Your task to perform on an android device: Go to Android settings Image 0: 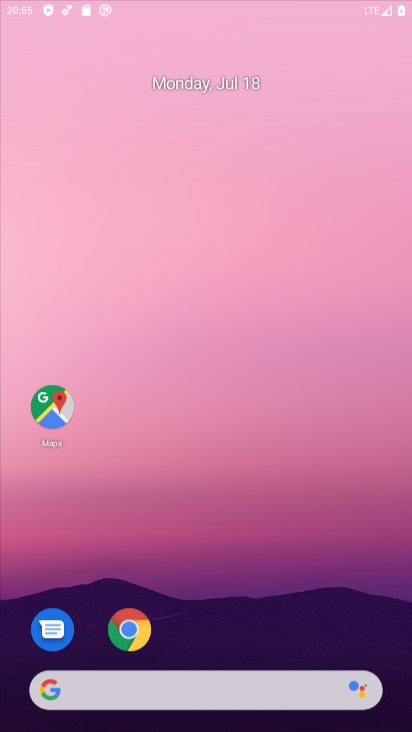
Step 0: press home button
Your task to perform on an android device: Go to Android settings Image 1: 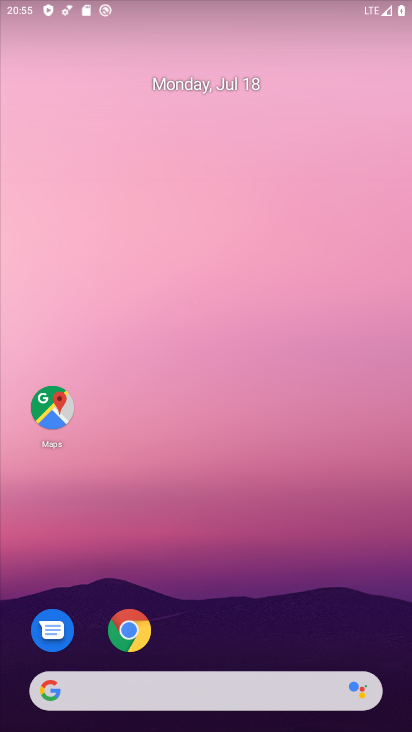
Step 1: click (137, 648)
Your task to perform on an android device: Go to Android settings Image 2: 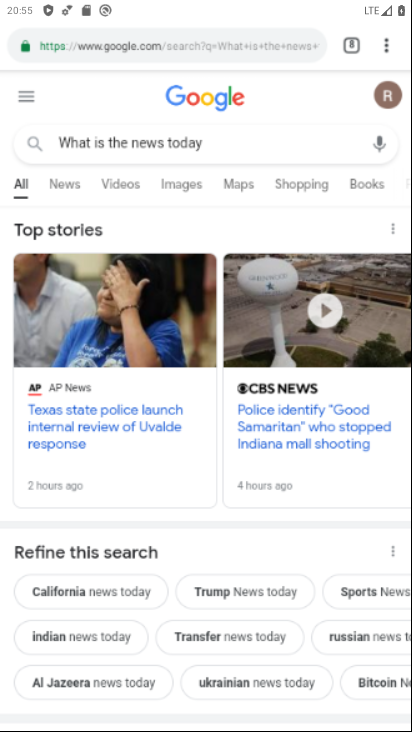
Step 2: click (395, 51)
Your task to perform on an android device: Go to Android settings Image 3: 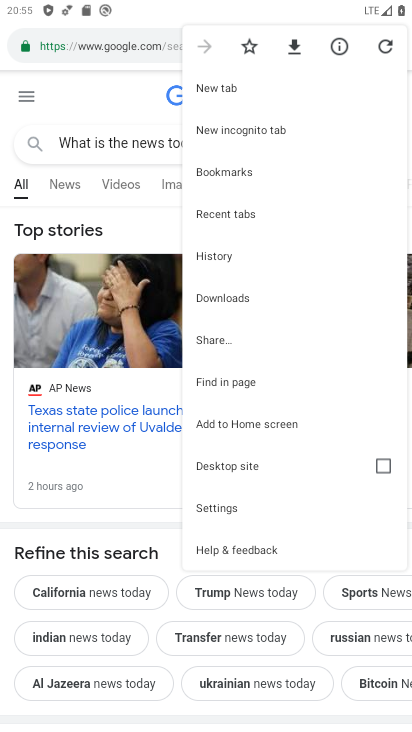
Step 3: click (241, 97)
Your task to perform on an android device: Go to Android settings Image 4: 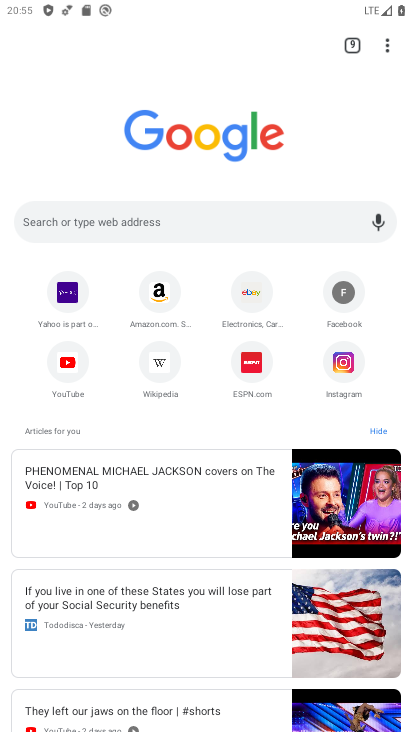
Step 4: click (159, 303)
Your task to perform on an android device: Go to Android settings Image 5: 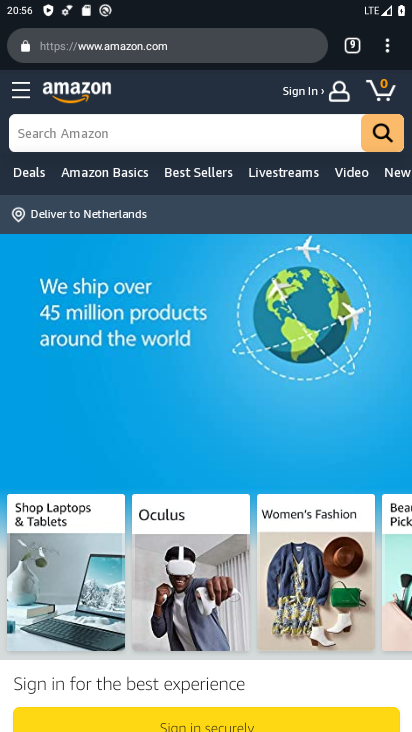
Step 5: press home button
Your task to perform on an android device: Go to Android settings Image 6: 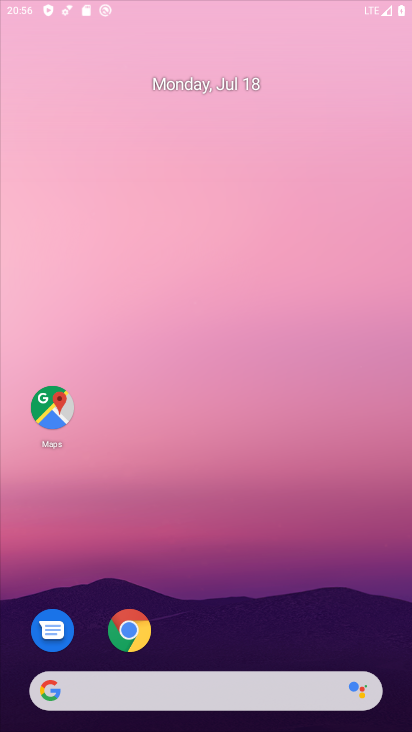
Step 6: drag from (209, 710) to (218, 207)
Your task to perform on an android device: Go to Android settings Image 7: 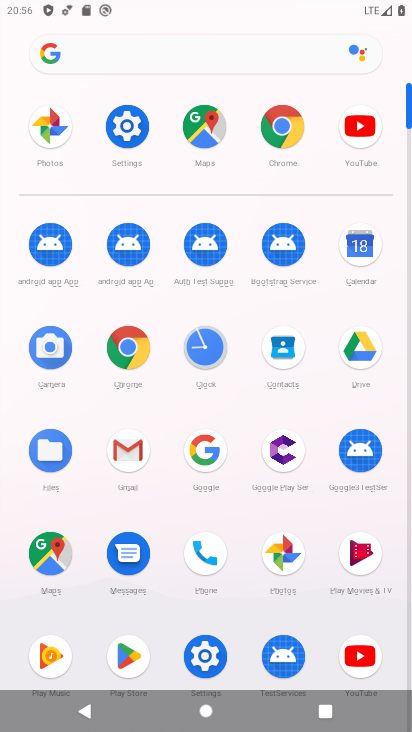
Step 7: click (131, 126)
Your task to perform on an android device: Go to Android settings Image 8: 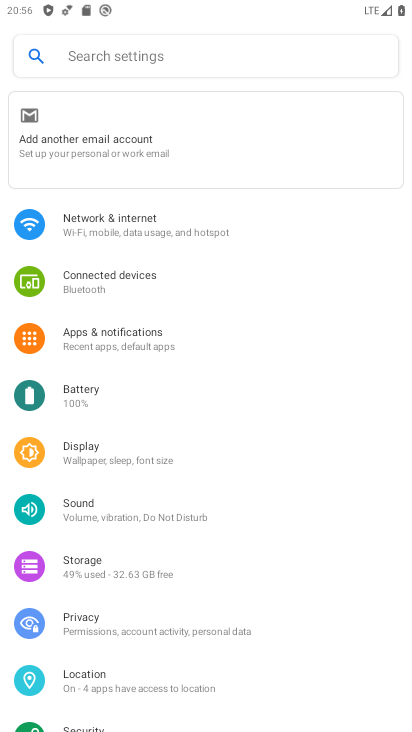
Step 8: task complete